Your task to perform on an android device: change timer sound Image 0: 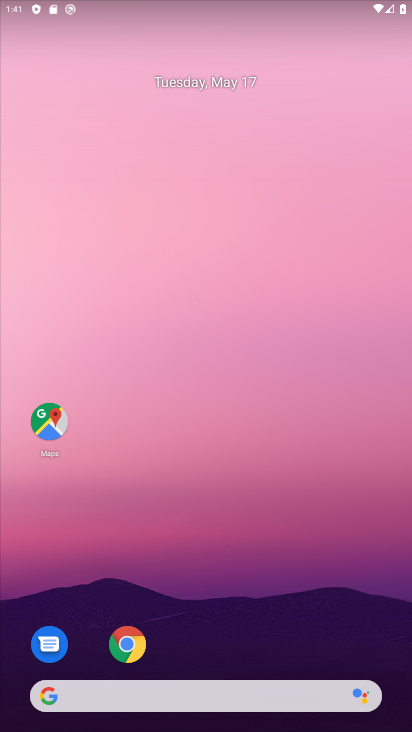
Step 0: drag from (223, 669) to (325, 211)
Your task to perform on an android device: change timer sound Image 1: 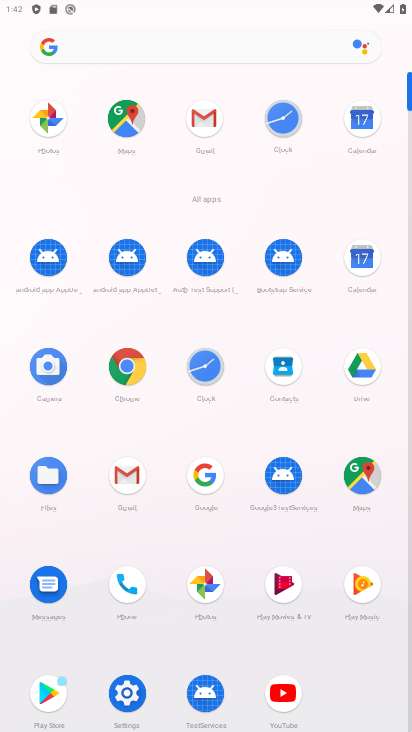
Step 1: click (216, 368)
Your task to perform on an android device: change timer sound Image 2: 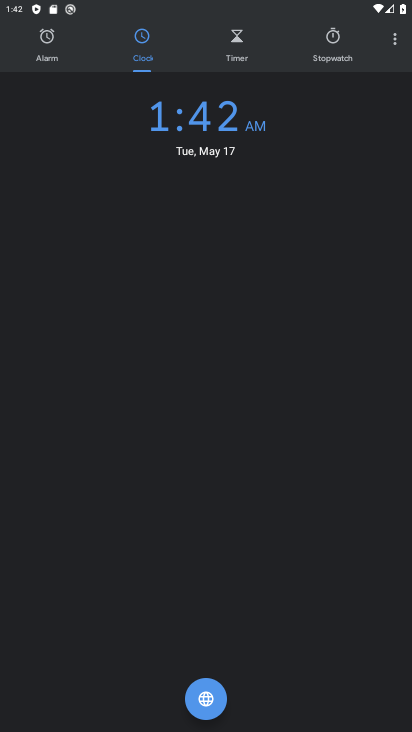
Step 2: click (392, 46)
Your task to perform on an android device: change timer sound Image 3: 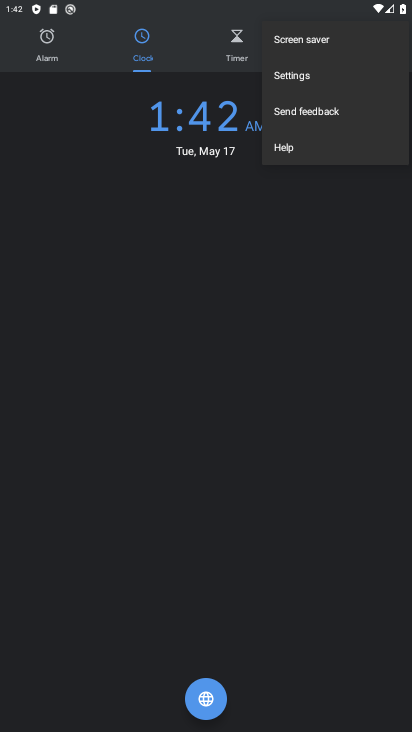
Step 3: click (369, 79)
Your task to perform on an android device: change timer sound Image 4: 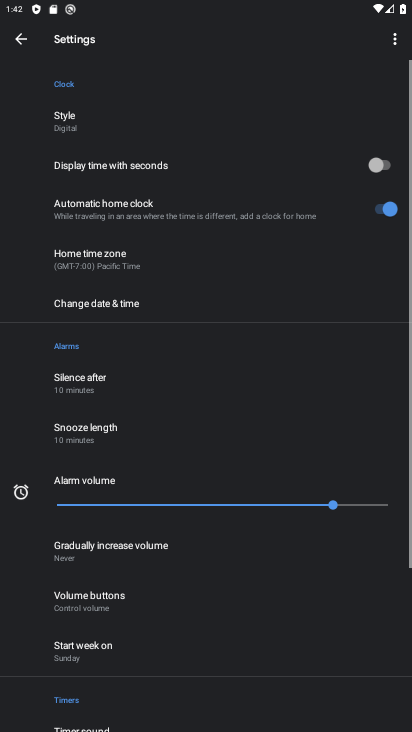
Step 4: drag from (236, 557) to (343, 185)
Your task to perform on an android device: change timer sound Image 5: 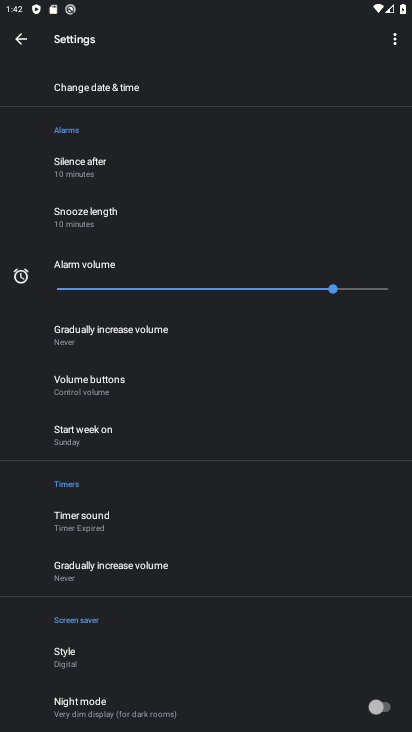
Step 5: click (188, 519)
Your task to perform on an android device: change timer sound Image 6: 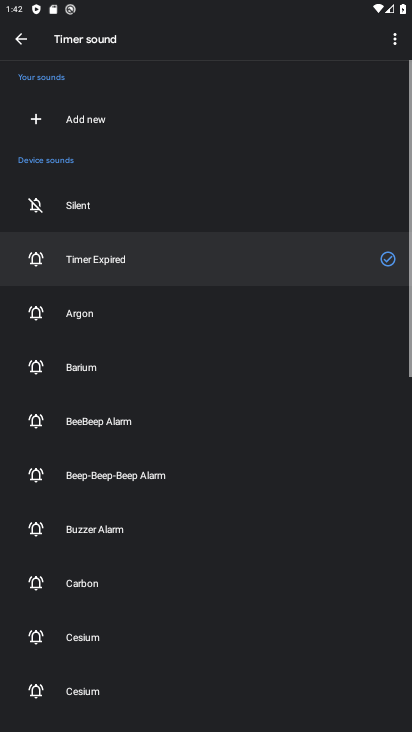
Step 6: drag from (218, 660) to (298, 319)
Your task to perform on an android device: change timer sound Image 7: 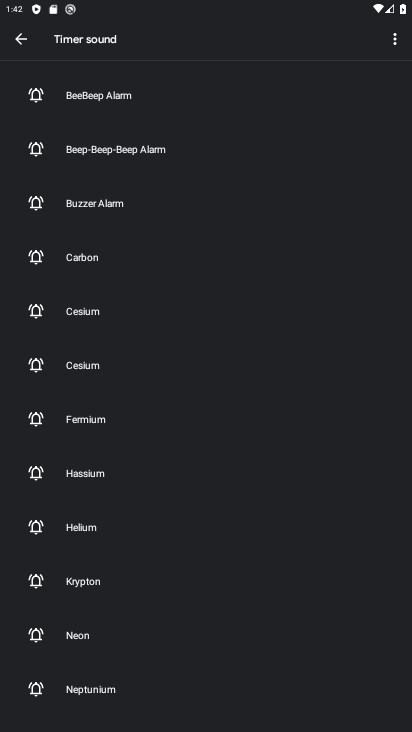
Step 7: click (188, 596)
Your task to perform on an android device: change timer sound Image 8: 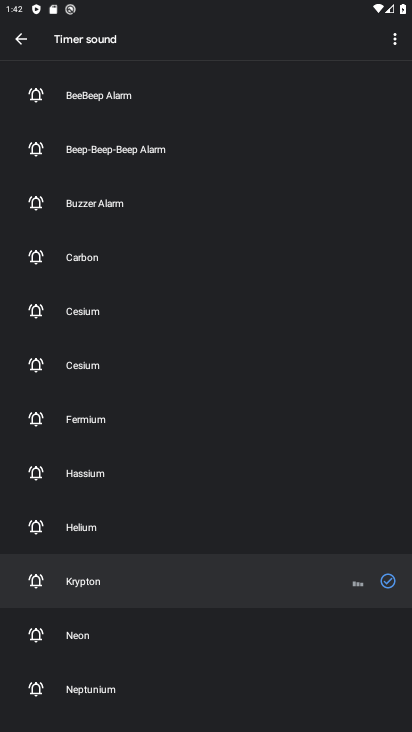
Step 8: task complete